Your task to perform on an android device: When is my next appointment? Image 0: 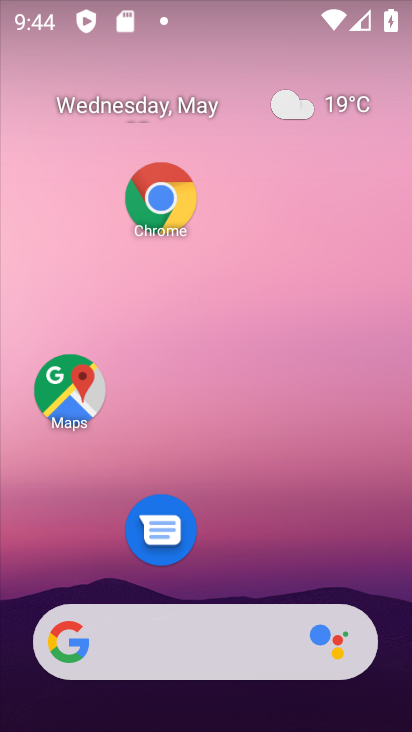
Step 0: drag from (229, 626) to (203, 30)
Your task to perform on an android device: When is my next appointment? Image 1: 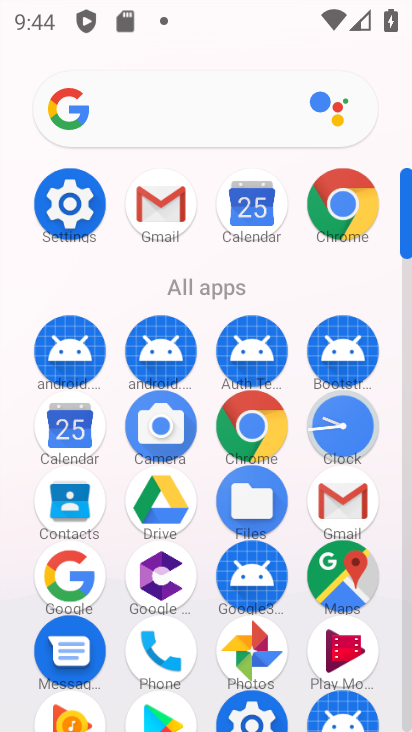
Step 1: click (66, 428)
Your task to perform on an android device: When is my next appointment? Image 2: 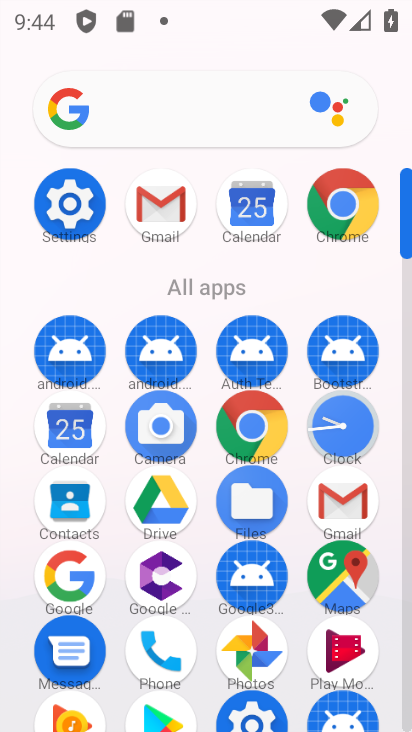
Step 2: click (66, 428)
Your task to perform on an android device: When is my next appointment? Image 3: 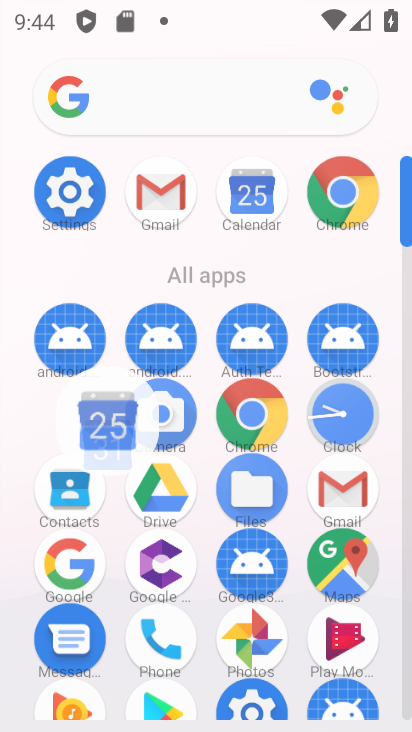
Step 3: click (66, 428)
Your task to perform on an android device: When is my next appointment? Image 4: 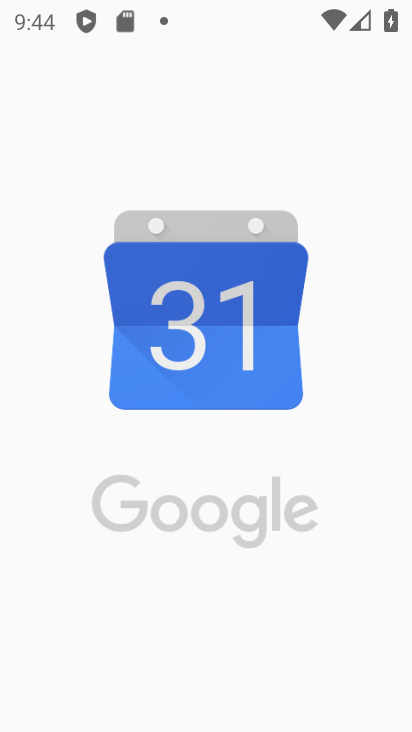
Step 4: click (67, 427)
Your task to perform on an android device: When is my next appointment? Image 5: 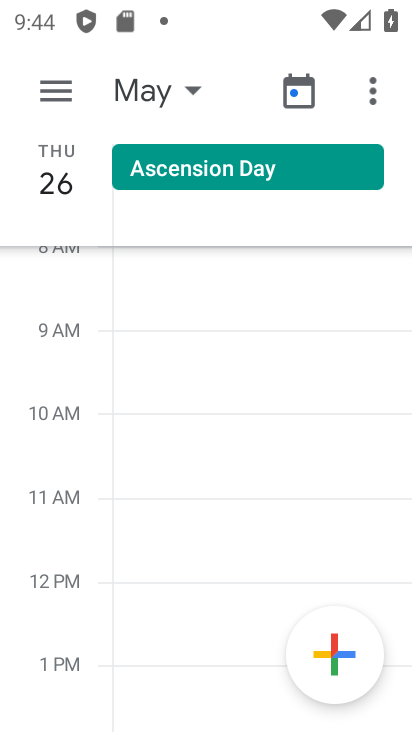
Step 5: click (188, 93)
Your task to perform on an android device: When is my next appointment? Image 6: 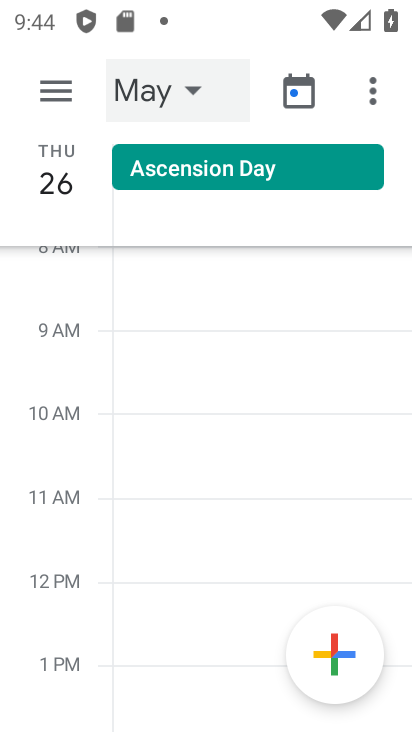
Step 6: click (188, 93)
Your task to perform on an android device: When is my next appointment? Image 7: 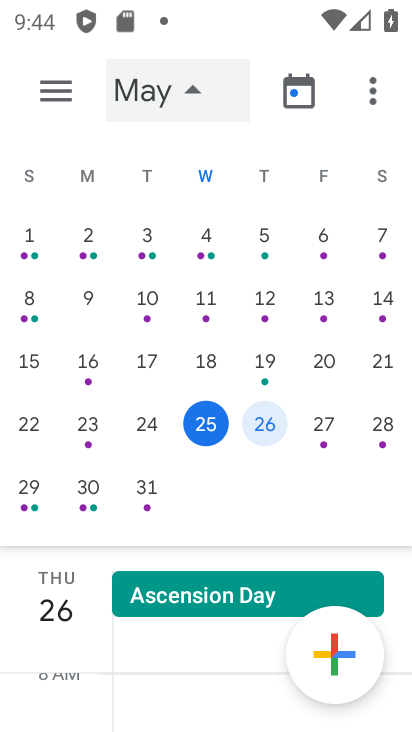
Step 7: drag from (188, 93) to (138, 369)
Your task to perform on an android device: When is my next appointment? Image 8: 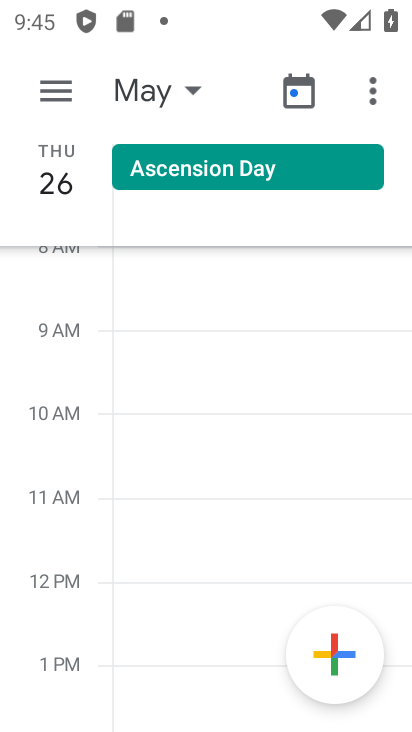
Step 8: drag from (155, 31) to (126, 66)
Your task to perform on an android device: When is my next appointment? Image 9: 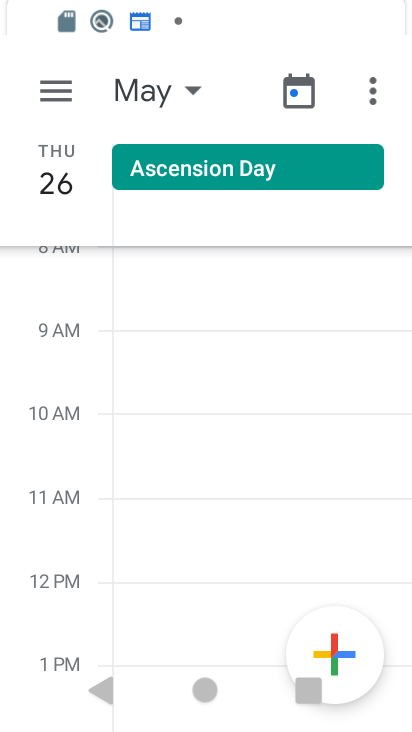
Step 9: drag from (151, 339) to (125, 2)
Your task to perform on an android device: When is my next appointment? Image 10: 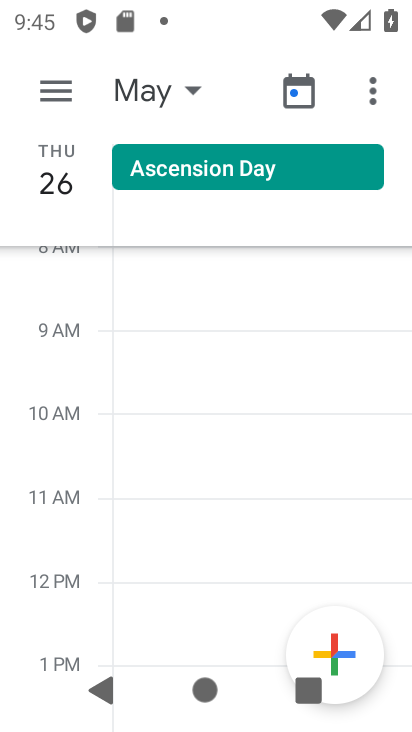
Step 10: drag from (200, 678) to (200, 297)
Your task to perform on an android device: When is my next appointment? Image 11: 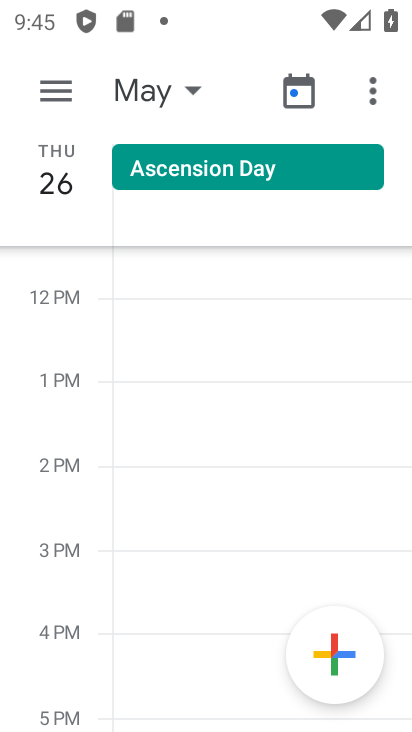
Step 11: press back button
Your task to perform on an android device: When is my next appointment? Image 12: 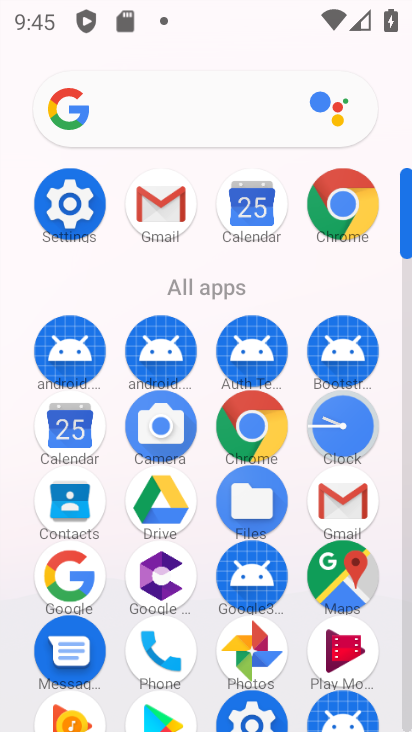
Step 12: drag from (189, 485) to (202, 223)
Your task to perform on an android device: When is my next appointment? Image 13: 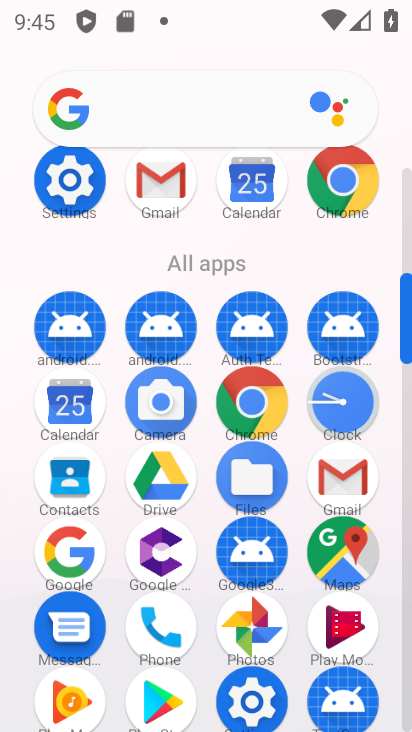
Step 13: drag from (192, 548) to (189, 139)
Your task to perform on an android device: When is my next appointment? Image 14: 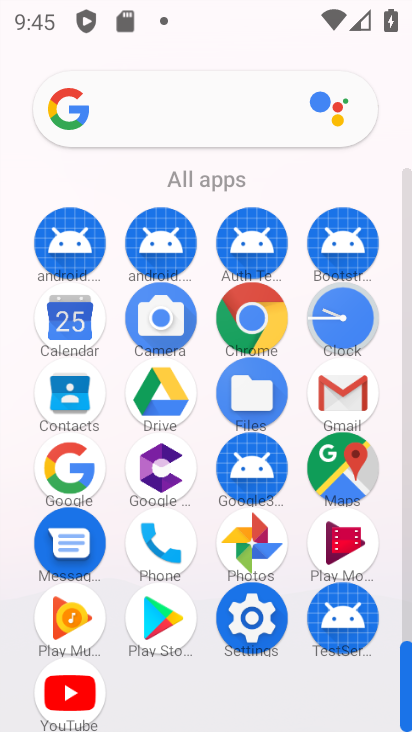
Step 14: drag from (190, 513) to (206, 74)
Your task to perform on an android device: When is my next appointment? Image 15: 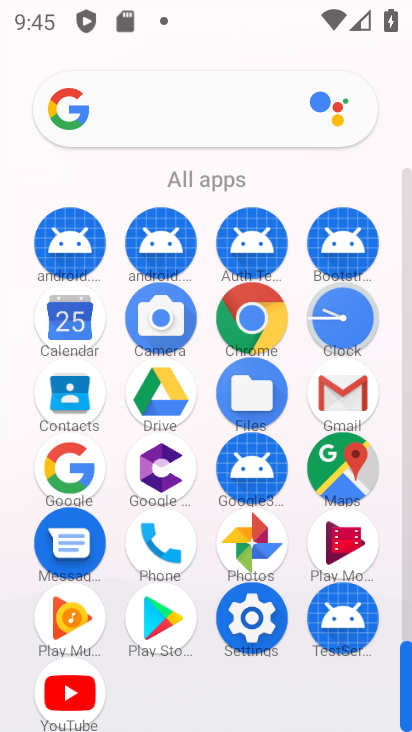
Step 15: click (237, 124)
Your task to perform on an android device: When is my next appointment? Image 16: 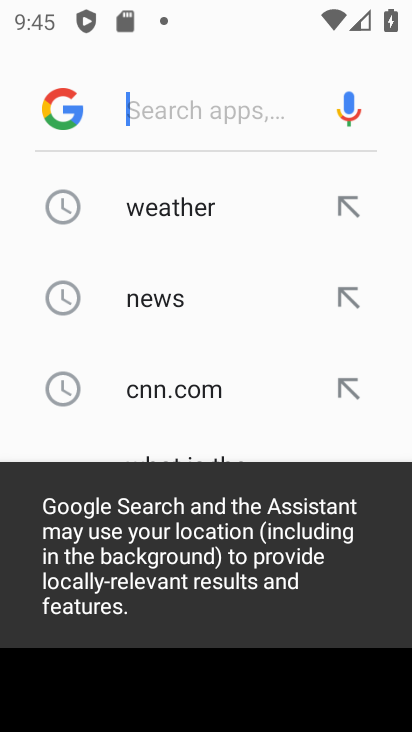
Step 16: press back button
Your task to perform on an android device: When is my next appointment? Image 17: 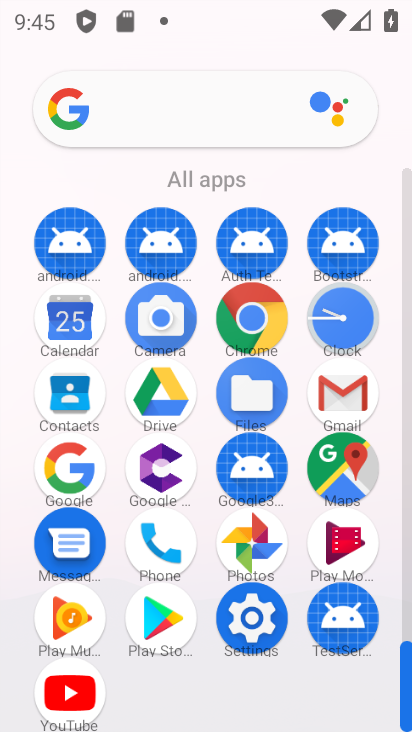
Step 17: click (337, 478)
Your task to perform on an android device: When is my next appointment? Image 18: 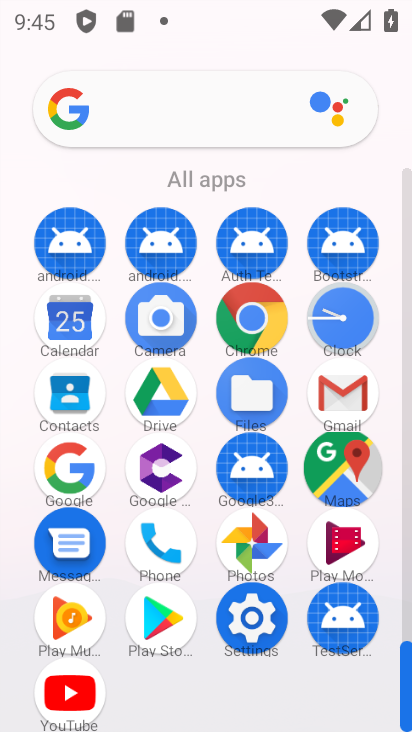
Step 18: click (336, 477)
Your task to perform on an android device: When is my next appointment? Image 19: 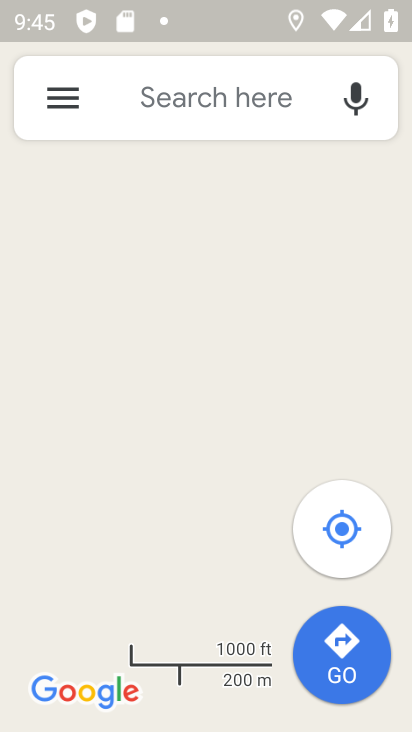
Step 19: press back button
Your task to perform on an android device: When is my next appointment? Image 20: 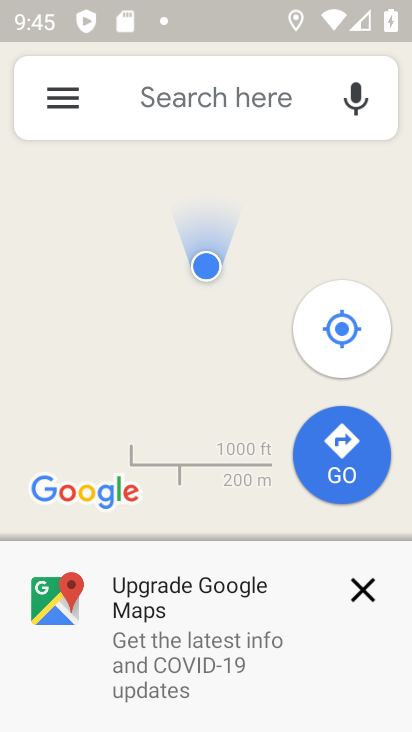
Step 20: press back button
Your task to perform on an android device: When is my next appointment? Image 21: 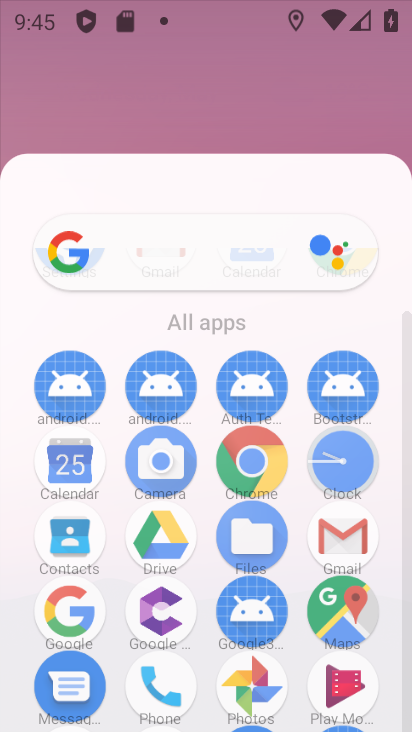
Step 21: click (72, 97)
Your task to perform on an android device: When is my next appointment? Image 22: 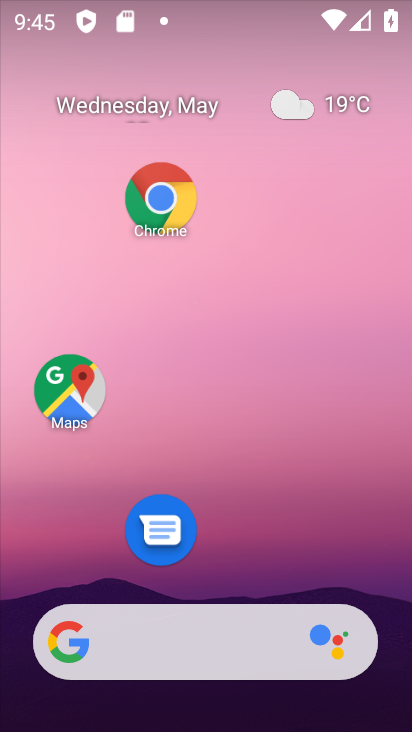
Step 22: click (72, 97)
Your task to perform on an android device: When is my next appointment? Image 23: 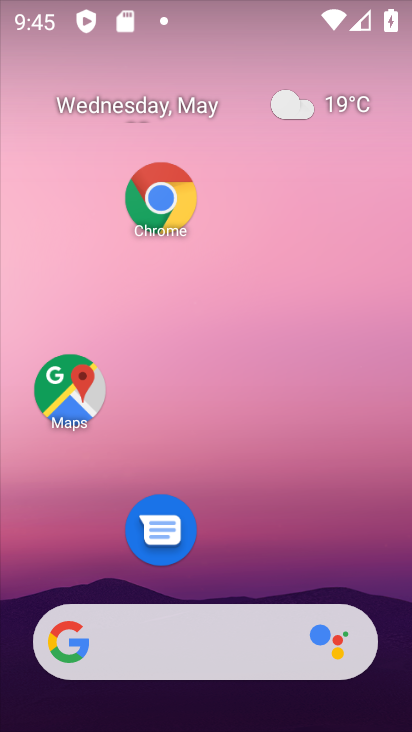
Step 23: drag from (273, 522) to (183, 7)
Your task to perform on an android device: When is my next appointment? Image 24: 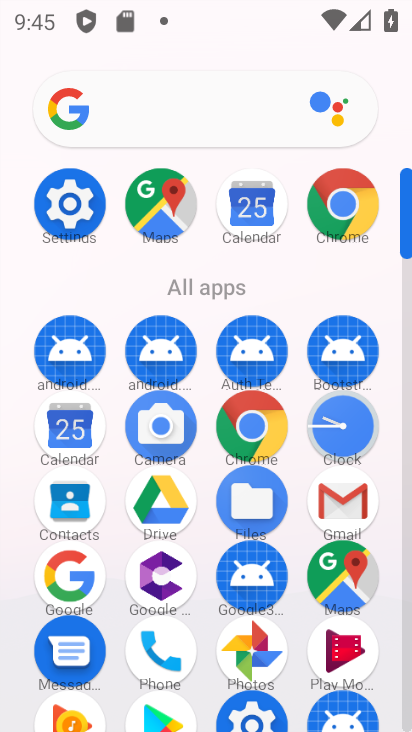
Step 24: click (56, 440)
Your task to perform on an android device: When is my next appointment? Image 25: 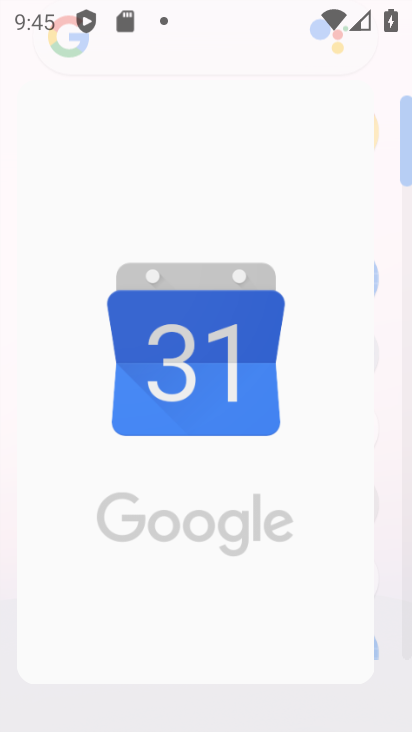
Step 25: click (58, 440)
Your task to perform on an android device: When is my next appointment? Image 26: 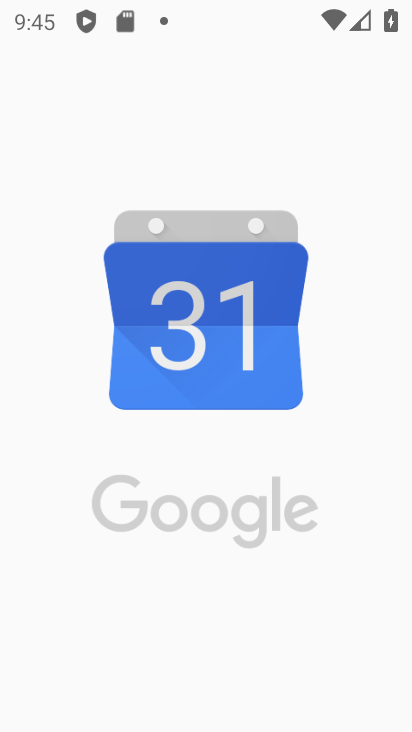
Step 26: click (58, 440)
Your task to perform on an android device: When is my next appointment? Image 27: 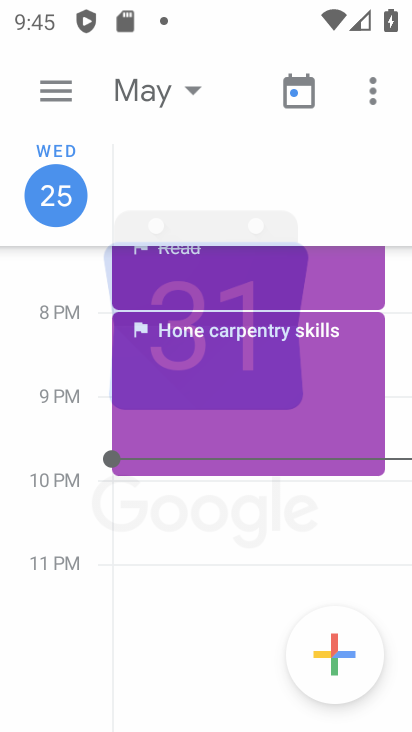
Step 27: click (61, 438)
Your task to perform on an android device: When is my next appointment? Image 28: 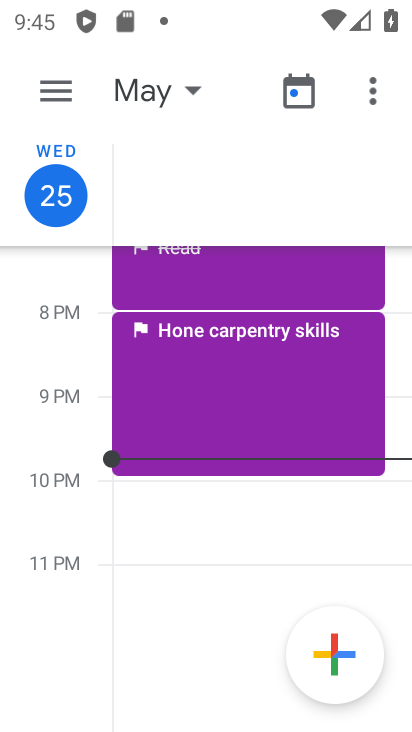
Step 28: click (61, 438)
Your task to perform on an android device: When is my next appointment? Image 29: 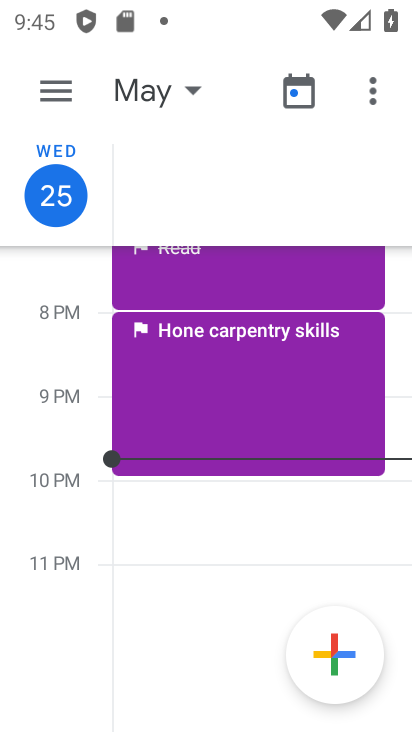
Step 29: click (62, 438)
Your task to perform on an android device: When is my next appointment? Image 30: 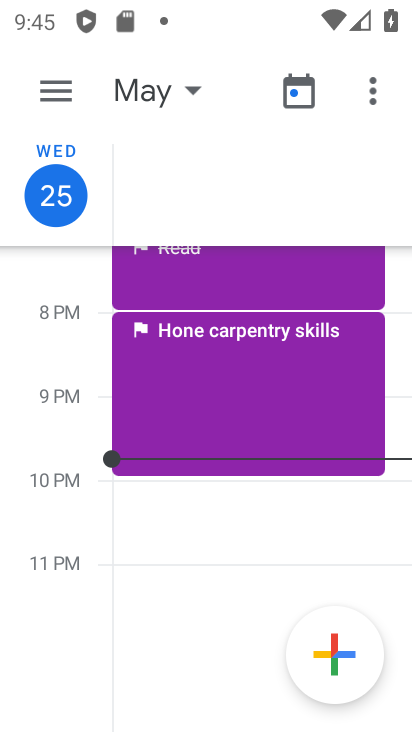
Step 30: click (57, 82)
Your task to perform on an android device: When is my next appointment? Image 31: 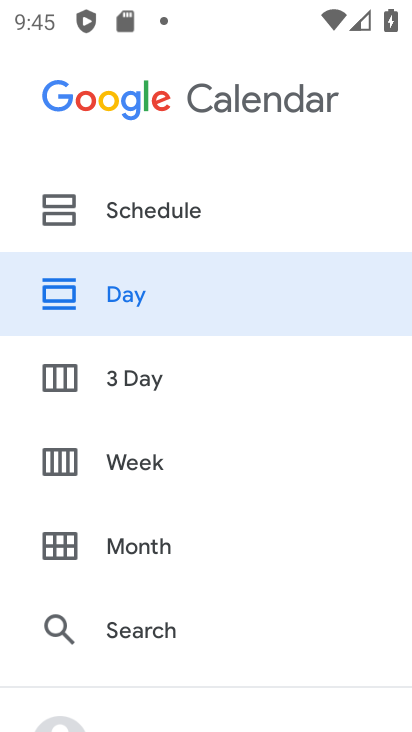
Step 31: click (148, 209)
Your task to perform on an android device: When is my next appointment? Image 32: 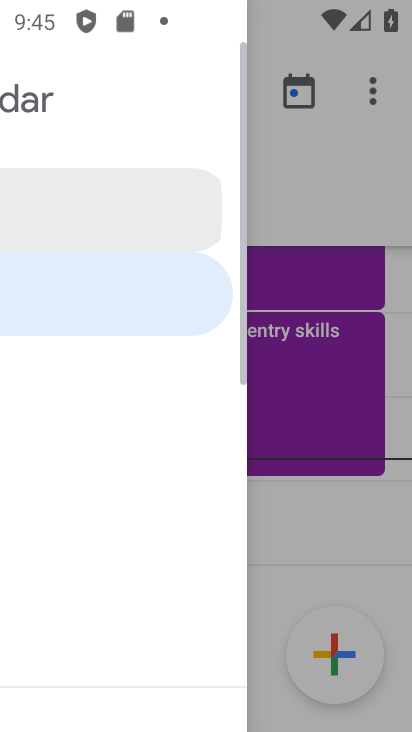
Step 32: click (145, 202)
Your task to perform on an android device: When is my next appointment? Image 33: 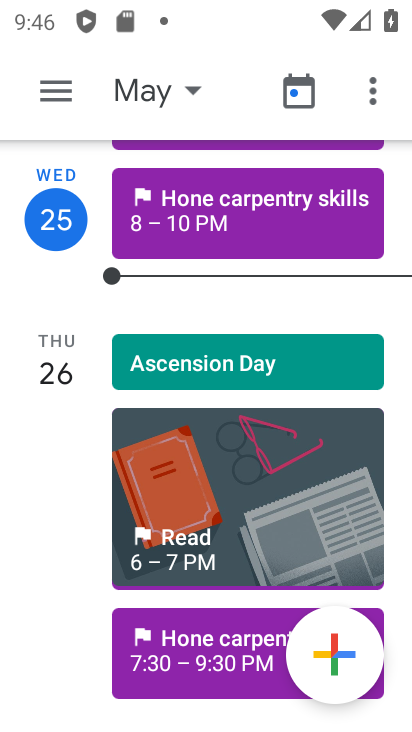
Step 33: click (188, 87)
Your task to perform on an android device: When is my next appointment? Image 34: 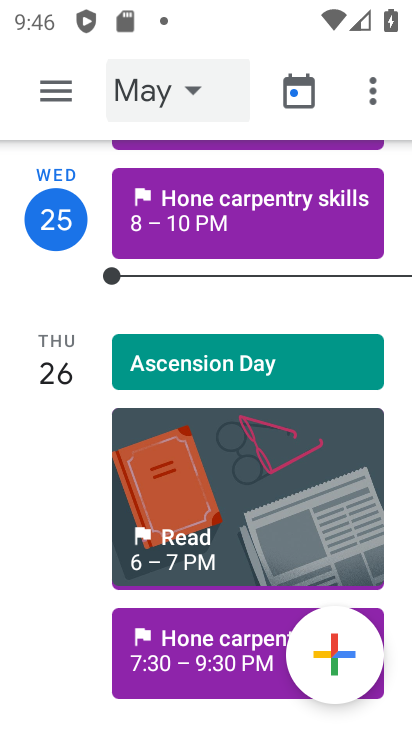
Step 34: click (188, 86)
Your task to perform on an android device: When is my next appointment? Image 35: 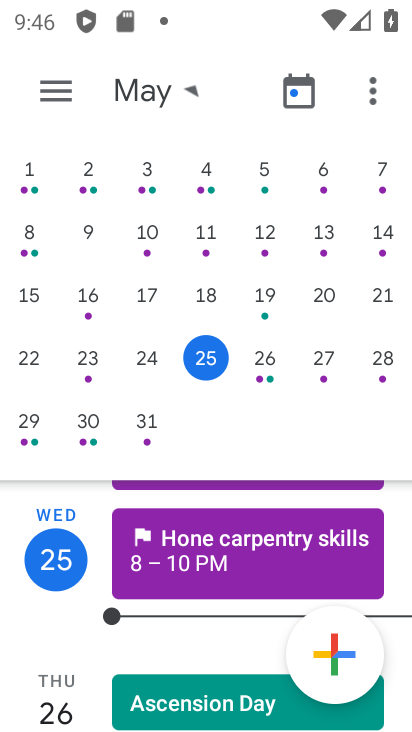
Step 35: click (188, 83)
Your task to perform on an android device: When is my next appointment? Image 36: 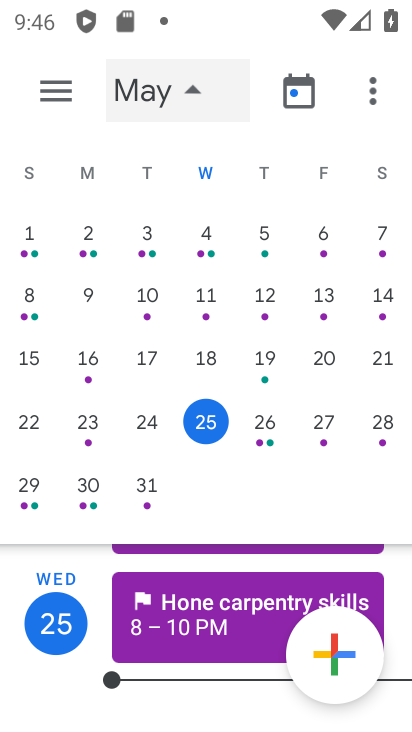
Step 36: click (187, 82)
Your task to perform on an android device: When is my next appointment? Image 37: 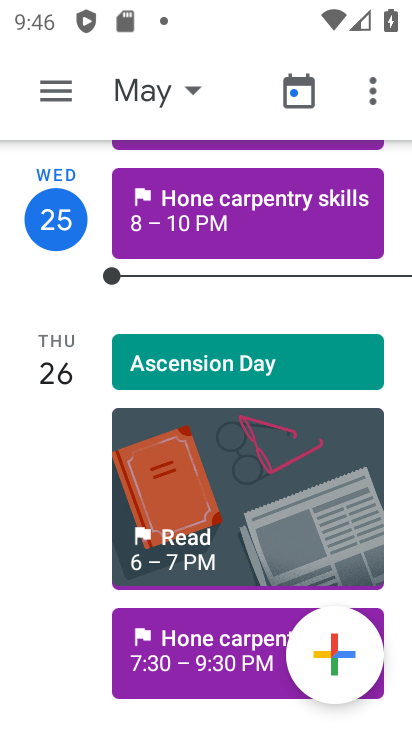
Step 37: task complete